Your task to perform on an android device: Open Android settings Image 0: 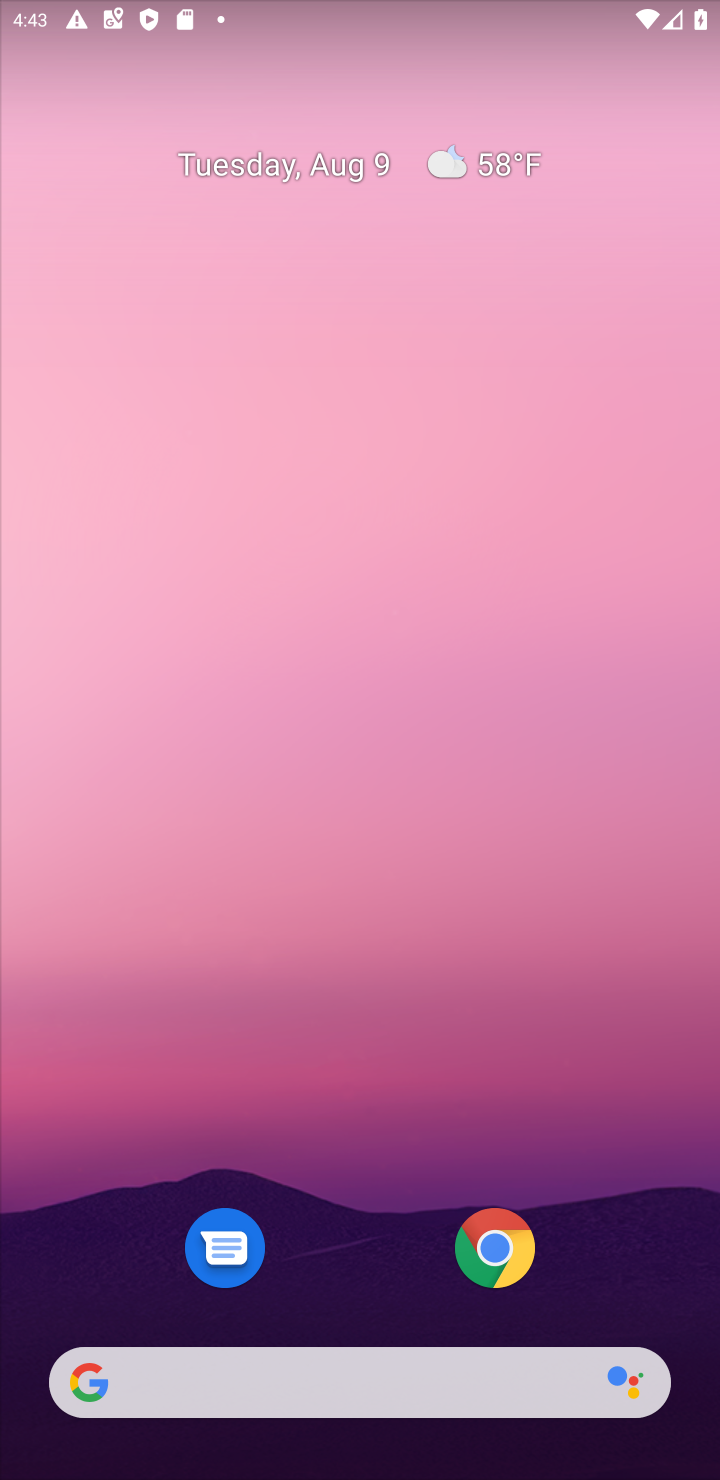
Step 0: press home button
Your task to perform on an android device: Open Android settings Image 1: 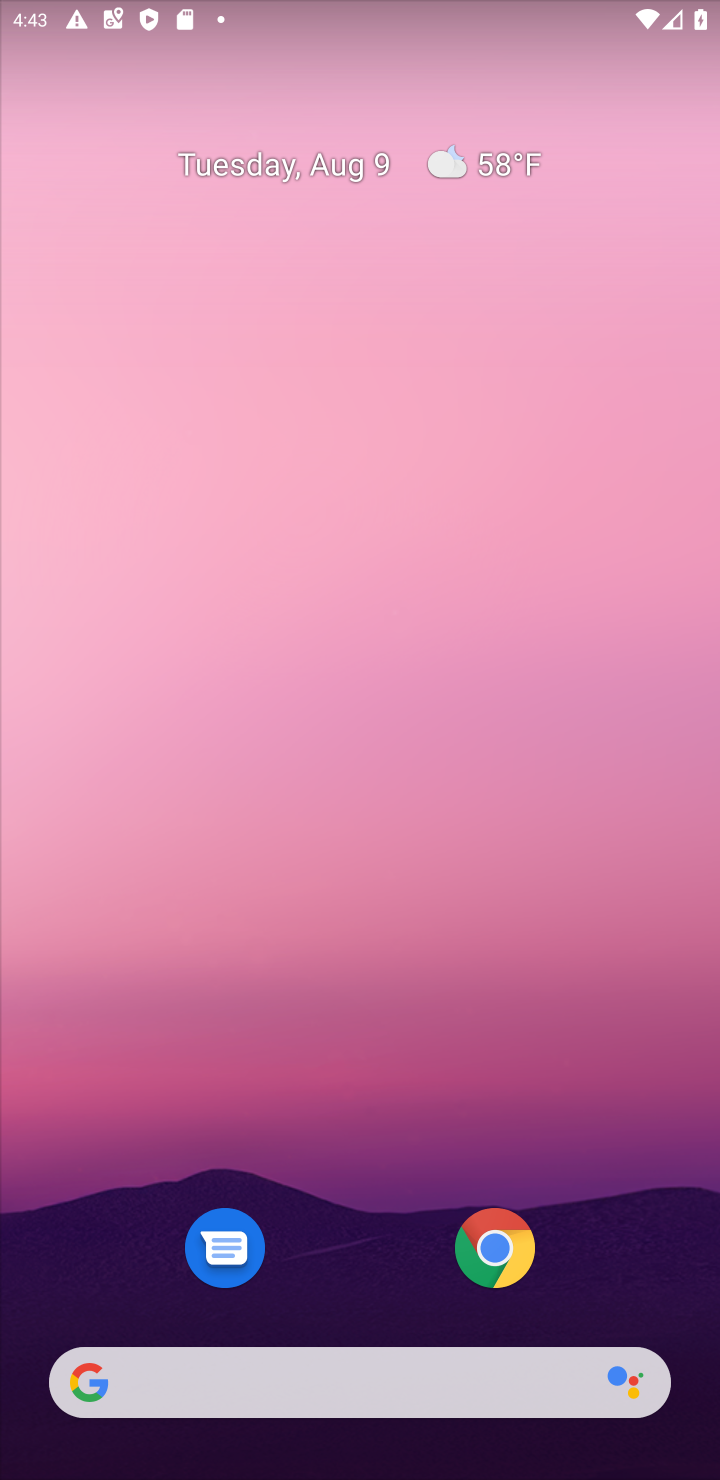
Step 1: drag from (356, 1187) to (336, 207)
Your task to perform on an android device: Open Android settings Image 2: 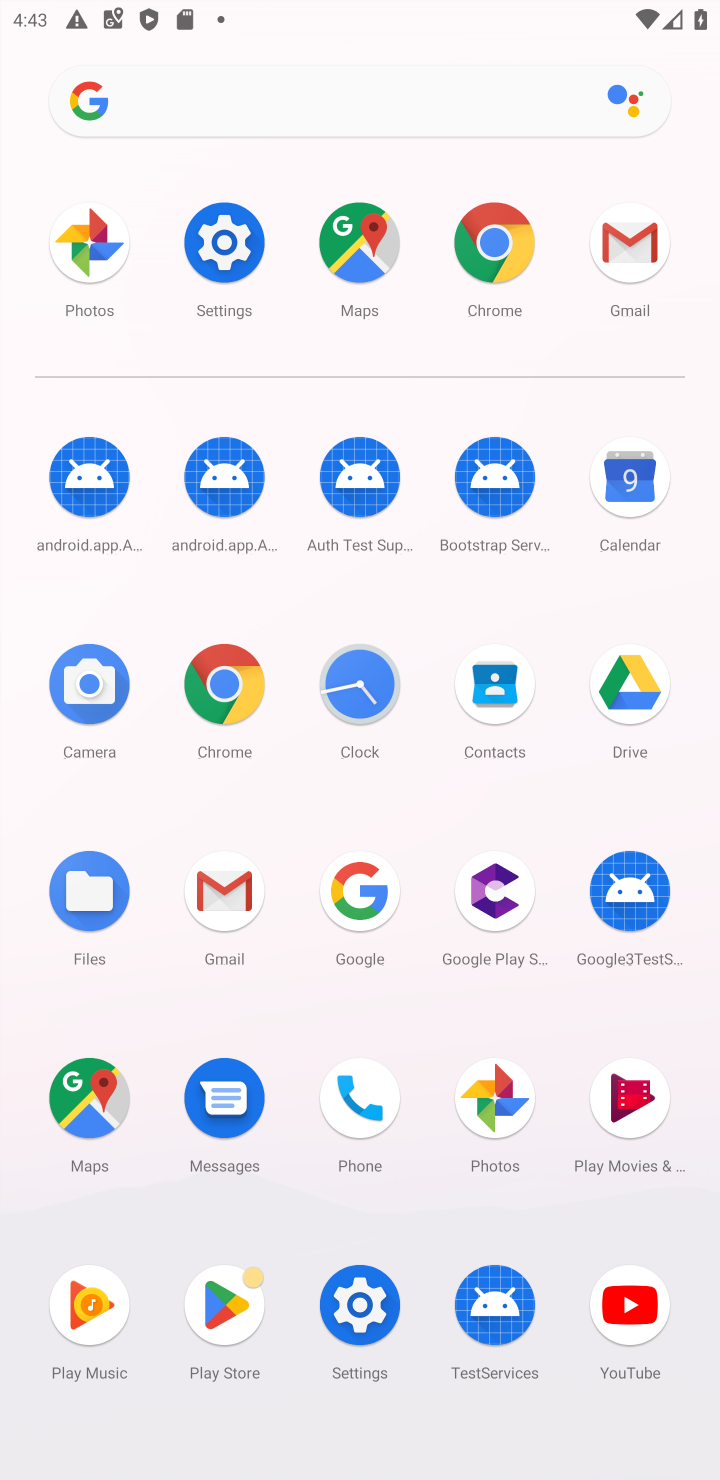
Step 2: click (222, 241)
Your task to perform on an android device: Open Android settings Image 3: 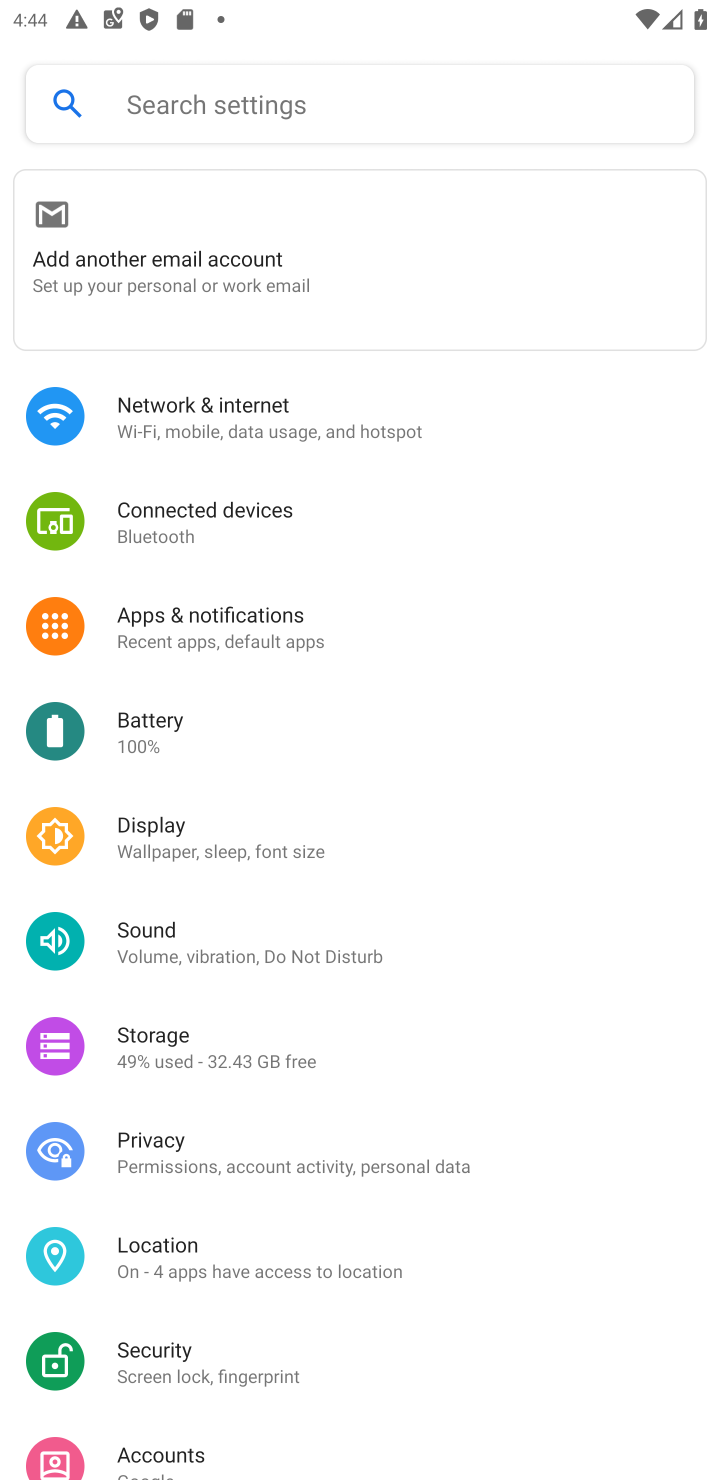
Step 3: task complete